Your task to perform on an android device: change notification settings in the gmail app Image 0: 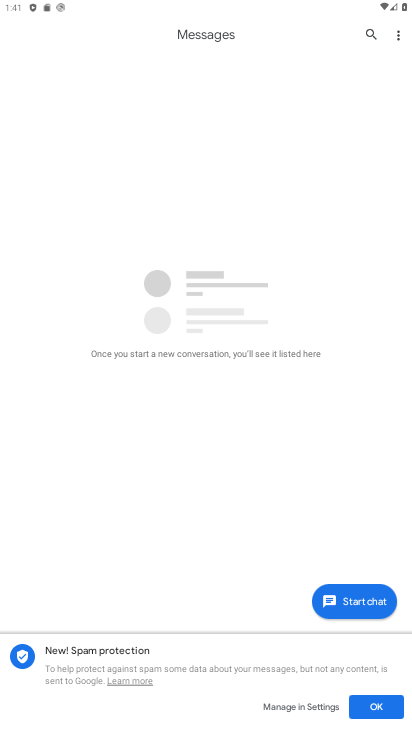
Step 0: press home button
Your task to perform on an android device: change notification settings in the gmail app Image 1: 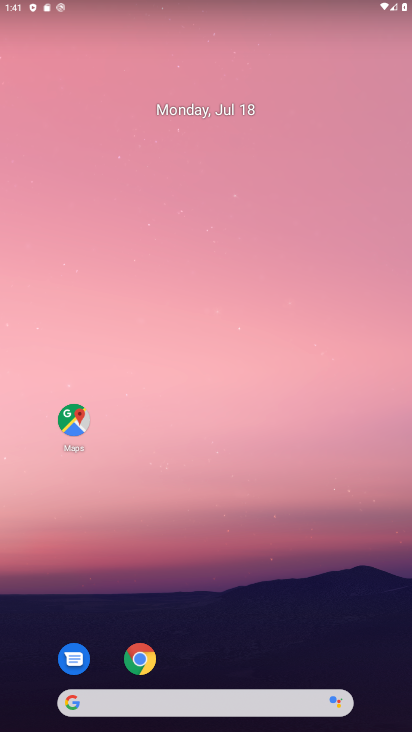
Step 1: drag from (377, 632) to (298, 279)
Your task to perform on an android device: change notification settings in the gmail app Image 2: 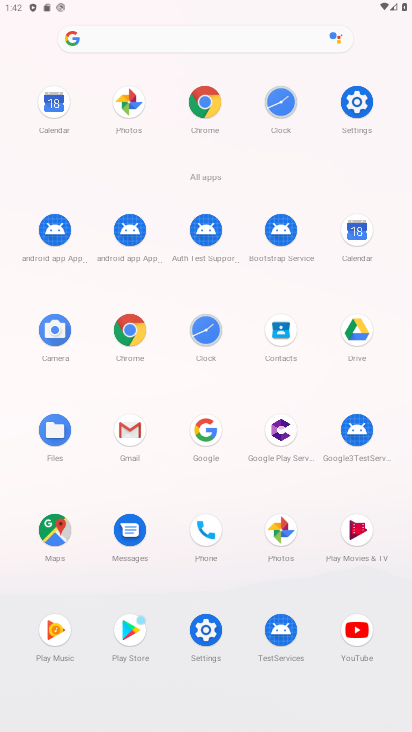
Step 2: click (132, 440)
Your task to perform on an android device: change notification settings in the gmail app Image 3: 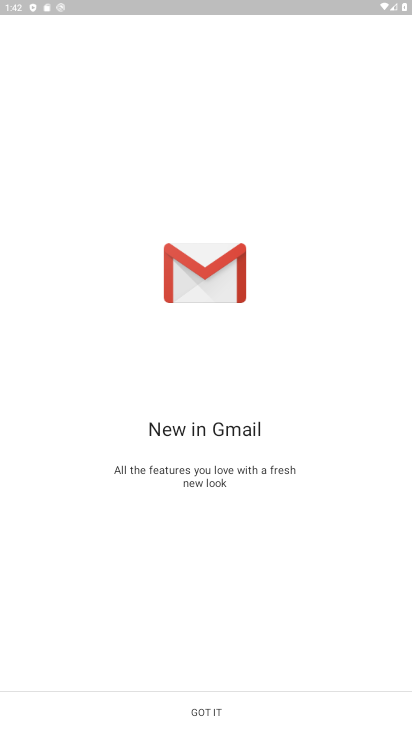
Step 3: click (194, 722)
Your task to perform on an android device: change notification settings in the gmail app Image 4: 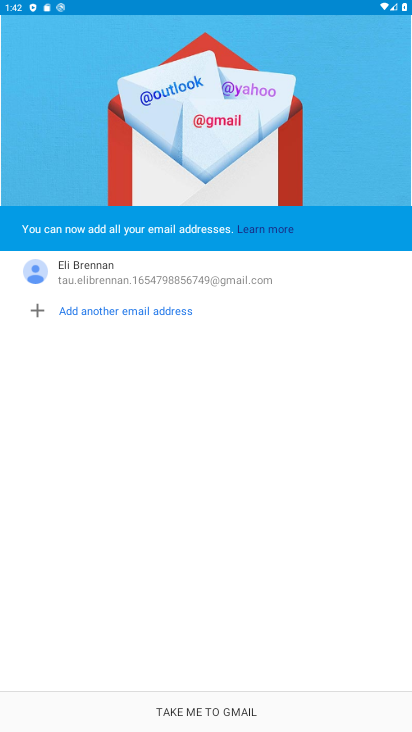
Step 4: click (194, 722)
Your task to perform on an android device: change notification settings in the gmail app Image 5: 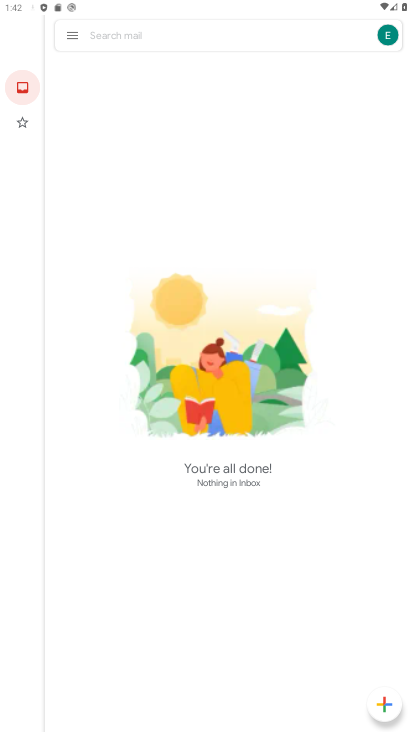
Step 5: click (71, 38)
Your task to perform on an android device: change notification settings in the gmail app Image 6: 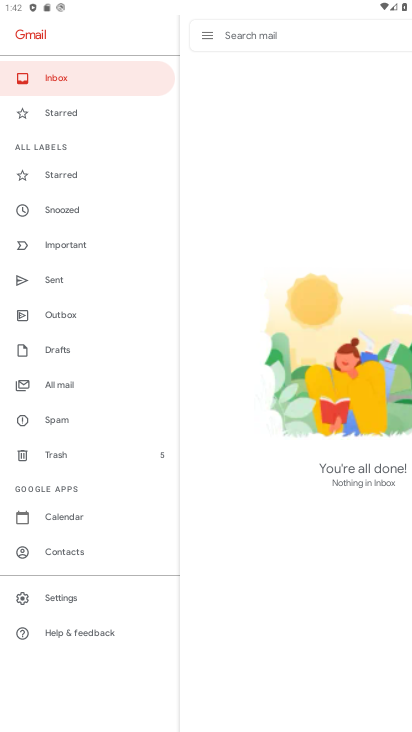
Step 6: click (52, 606)
Your task to perform on an android device: change notification settings in the gmail app Image 7: 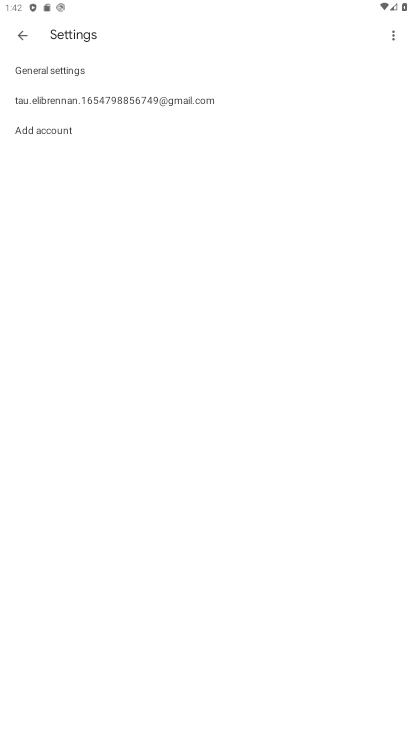
Step 7: click (197, 105)
Your task to perform on an android device: change notification settings in the gmail app Image 8: 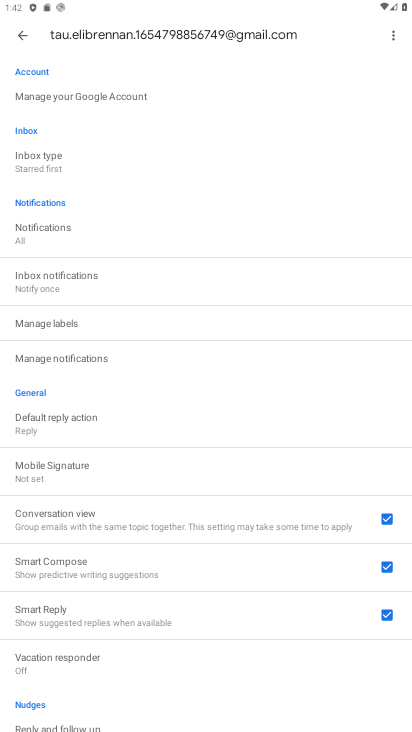
Step 8: click (174, 355)
Your task to perform on an android device: change notification settings in the gmail app Image 9: 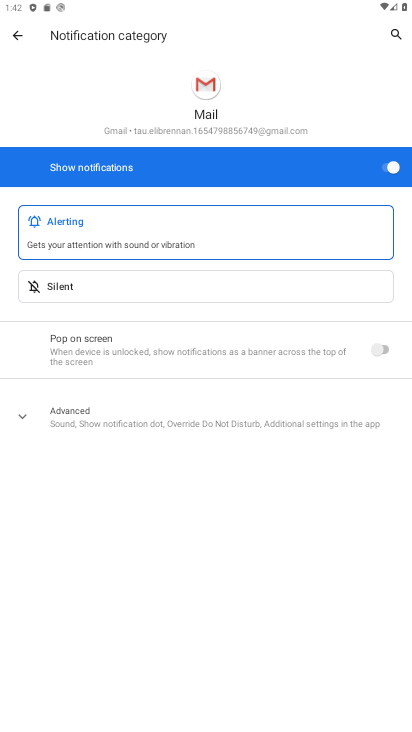
Step 9: click (185, 296)
Your task to perform on an android device: change notification settings in the gmail app Image 10: 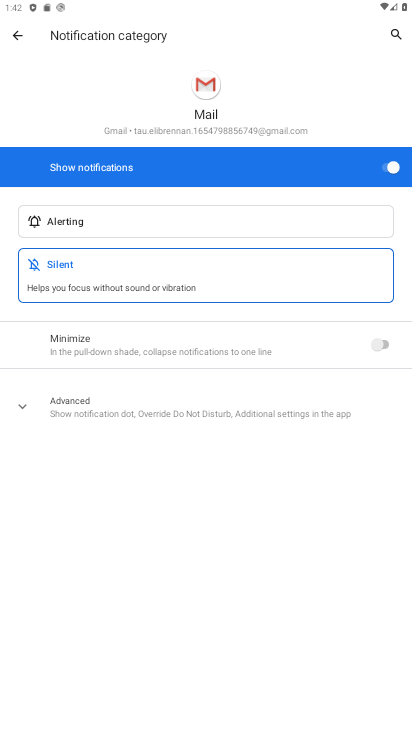
Step 10: click (383, 349)
Your task to perform on an android device: change notification settings in the gmail app Image 11: 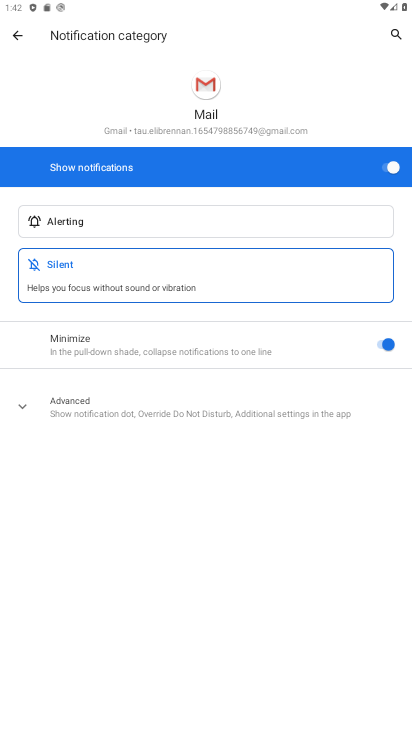
Step 11: task complete